Your task to perform on an android device: search for starred emails in the gmail app Image 0: 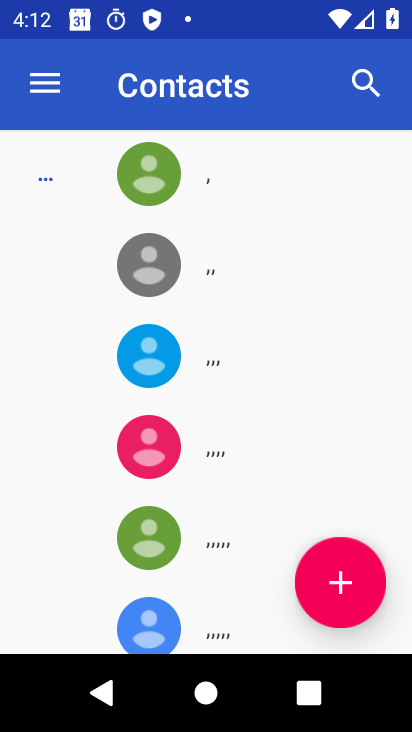
Step 0: press home button
Your task to perform on an android device: search for starred emails in the gmail app Image 1: 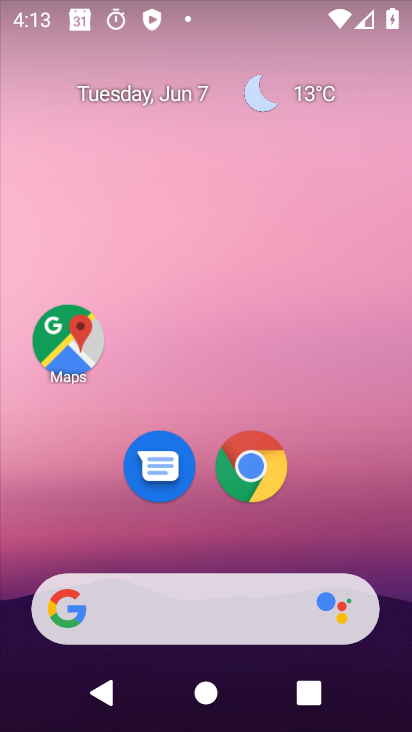
Step 1: click (290, 114)
Your task to perform on an android device: search for starred emails in the gmail app Image 2: 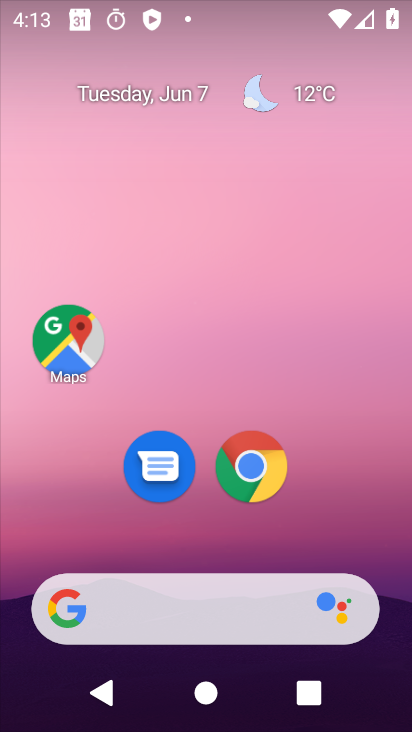
Step 2: drag from (402, 602) to (294, 126)
Your task to perform on an android device: search for starred emails in the gmail app Image 3: 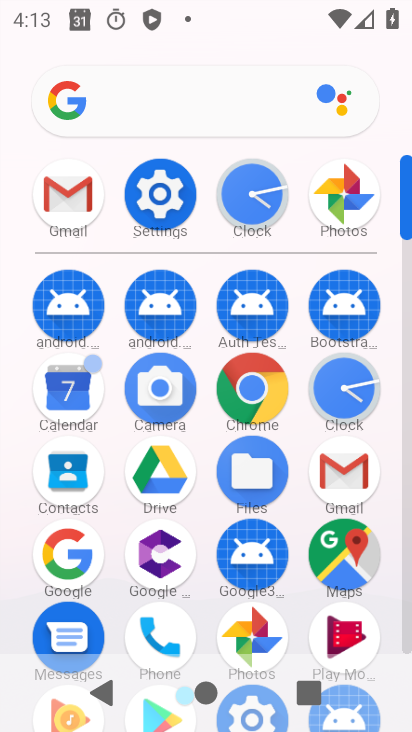
Step 3: click (75, 199)
Your task to perform on an android device: search for starred emails in the gmail app Image 4: 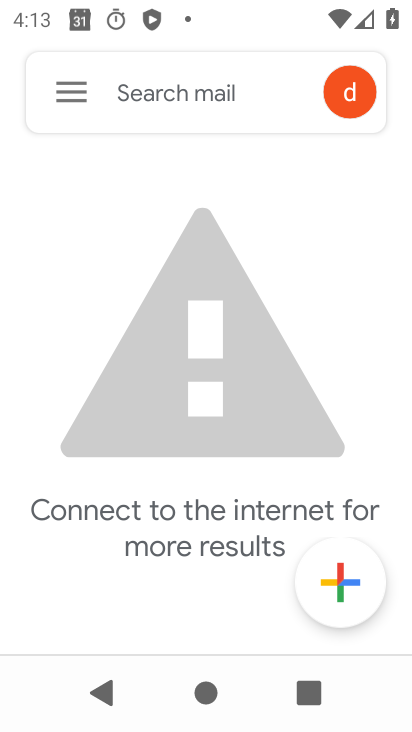
Step 4: click (57, 83)
Your task to perform on an android device: search for starred emails in the gmail app Image 5: 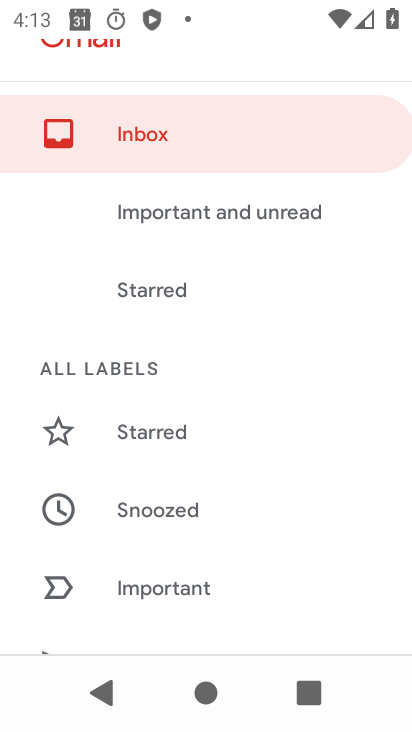
Step 5: click (167, 430)
Your task to perform on an android device: search for starred emails in the gmail app Image 6: 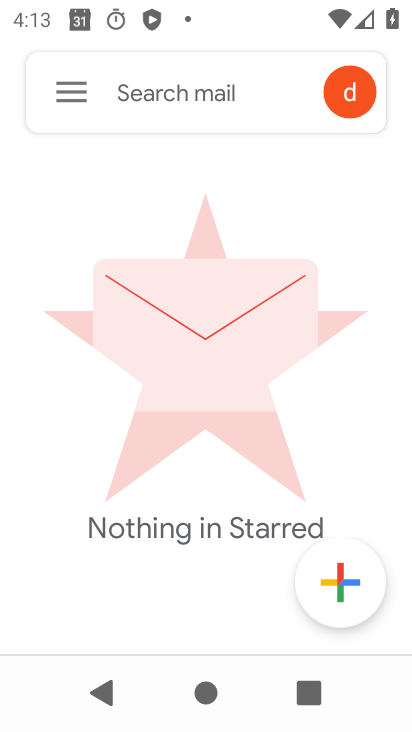
Step 6: task complete